Your task to perform on an android device: Open Google Maps and go to "Timeline" Image 0: 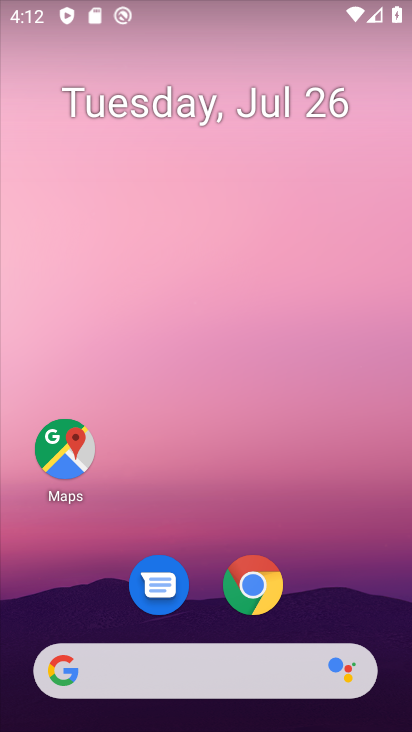
Step 0: click (67, 452)
Your task to perform on an android device: Open Google Maps and go to "Timeline" Image 1: 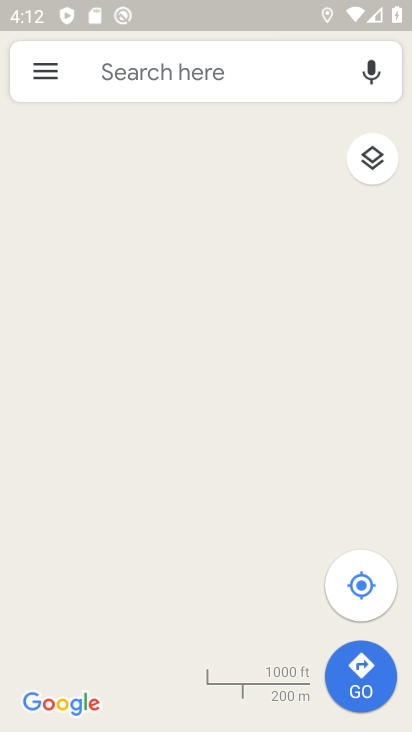
Step 1: click (48, 66)
Your task to perform on an android device: Open Google Maps and go to "Timeline" Image 2: 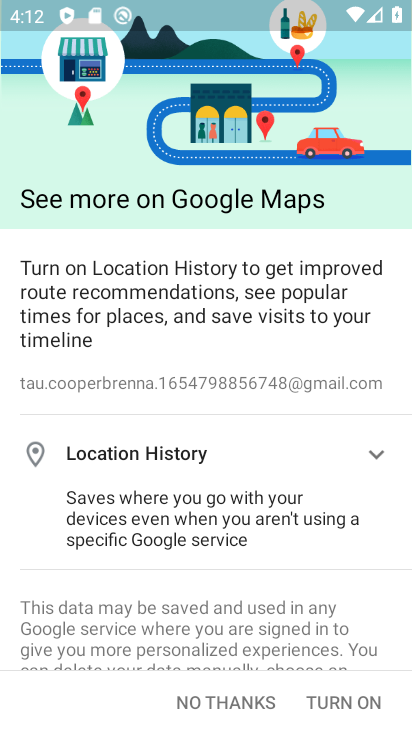
Step 2: click (339, 701)
Your task to perform on an android device: Open Google Maps and go to "Timeline" Image 3: 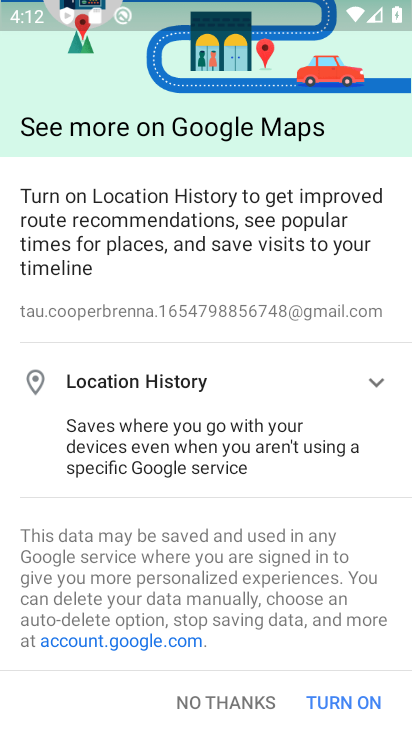
Step 3: click (339, 701)
Your task to perform on an android device: Open Google Maps and go to "Timeline" Image 4: 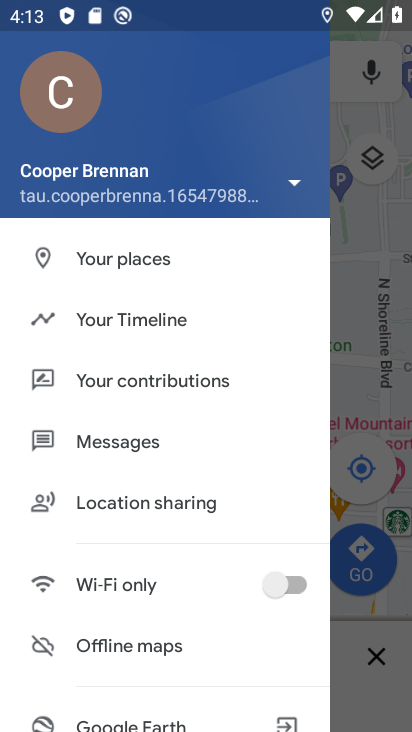
Step 4: click (374, 388)
Your task to perform on an android device: Open Google Maps and go to "Timeline" Image 5: 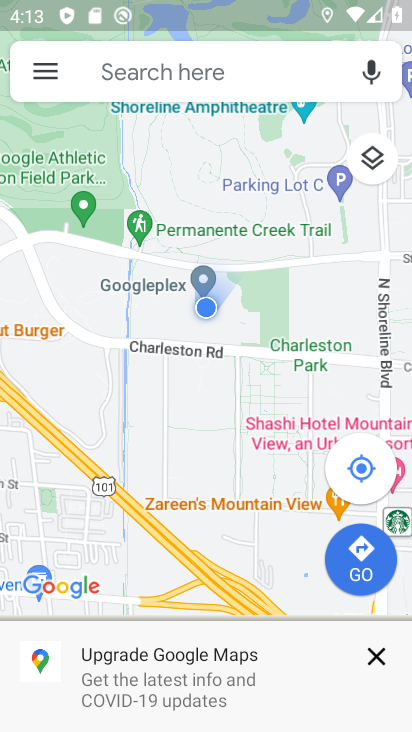
Step 5: click (43, 76)
Your task to perform on an android device: Open Google Maps and go to "Timeline" Image 6: 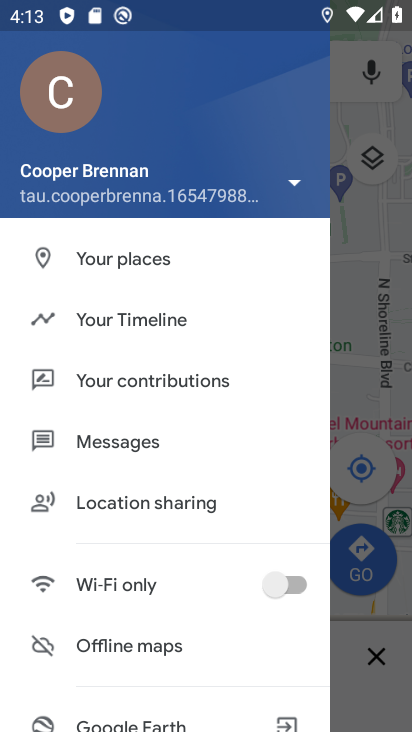
Step 6: click (126, 315)
Your task to perform on an android device: Open Google Maps and go to "Timeline" Image 7: 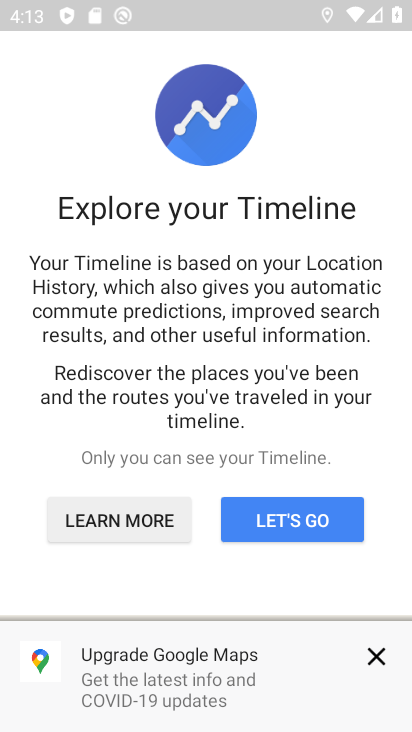
Step 7: click (353, 511)
Your task to perform on an android device: Open Google Maps and go to "Timeline" Image 8: 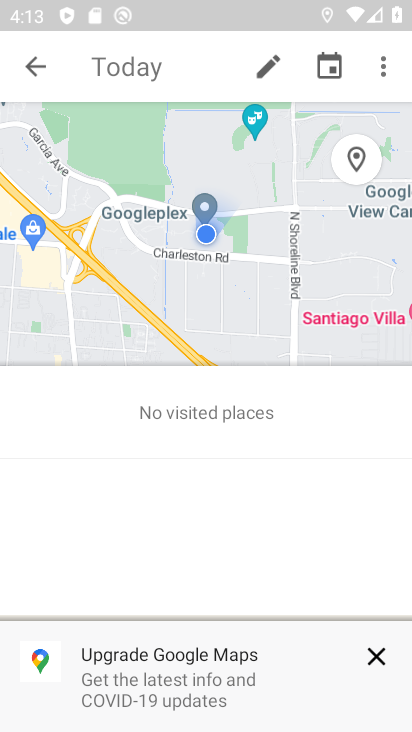
Step 8: task complete